Your task to perform on an android device: check google app version Image 0: 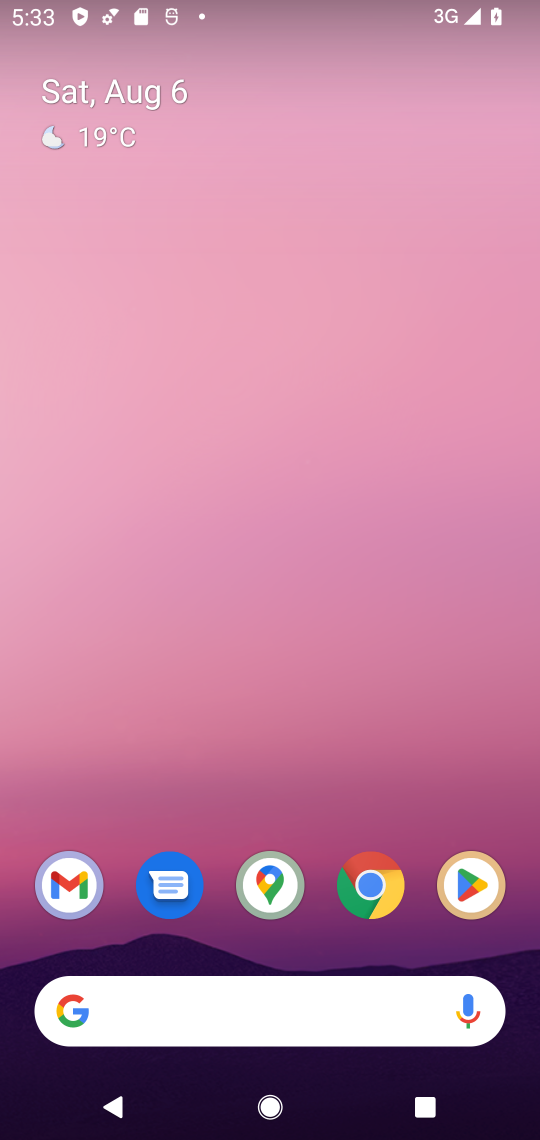
Step 0: drag from (410, 950) to (260, 90)
Your task to perform on an android device: check google app version Image 1: 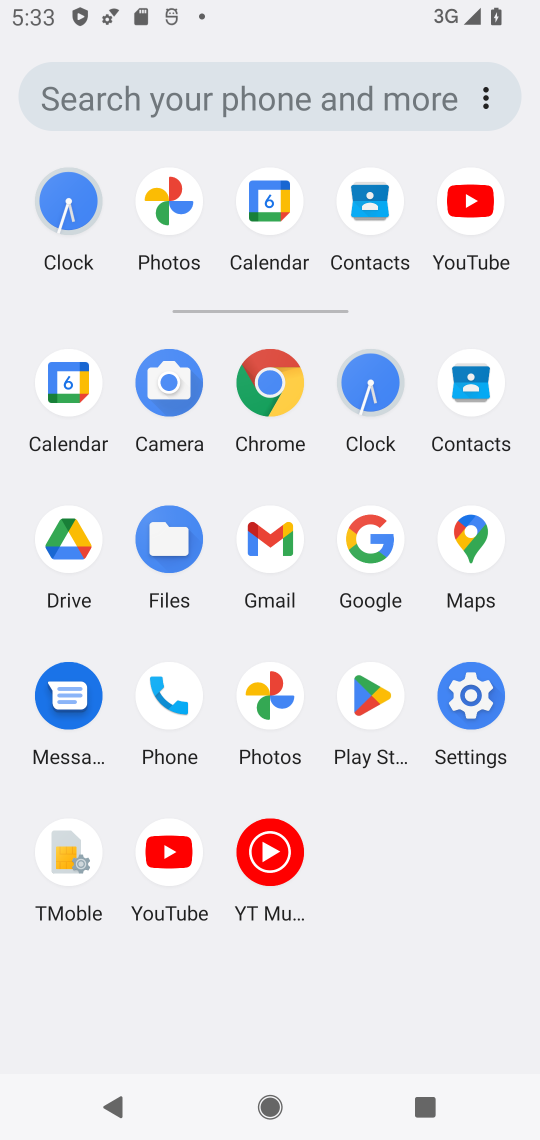
Step 1: click (364, 549)
Your task to perform on an android device: check google app version Image 2: 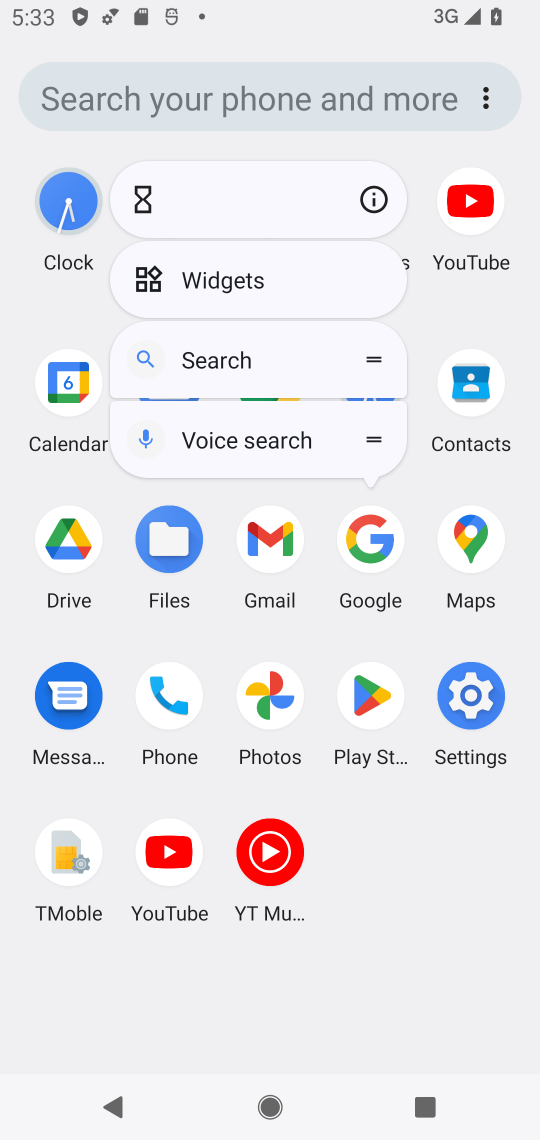
Step 2: click (369, 193)
Your task to perform on an android device: check google app version Image 3: 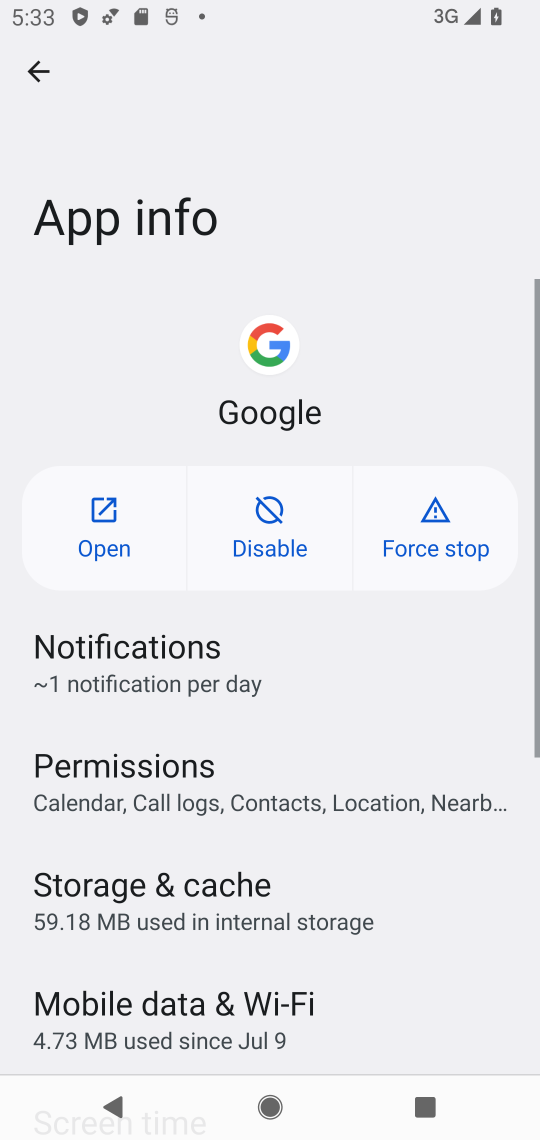
Step 3: task complete